Your task to perform on an android device: turn off data saver in the chrome app Image 0: 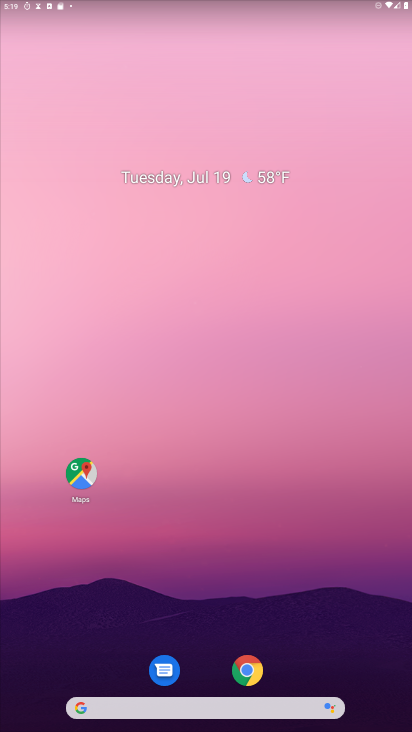
Step 0: drag from (243, 561) to (190, 3)
Your task to perform on an android device: turn off data saver in the chrome app Image 1: 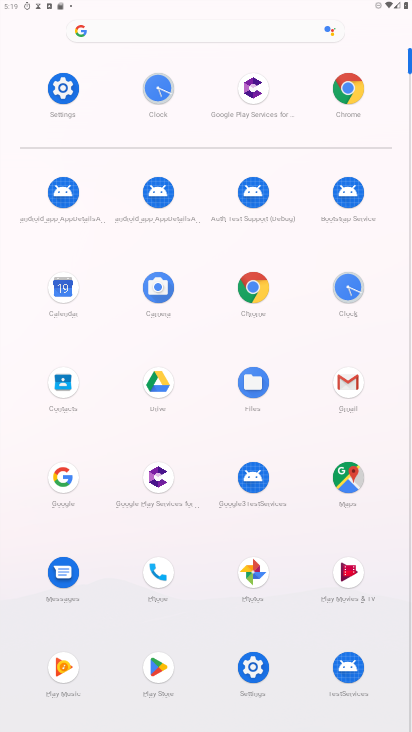
Step 1: click (255, 274)
Your task to perform on an android device: turn off data saver in the chrome app Image 2: 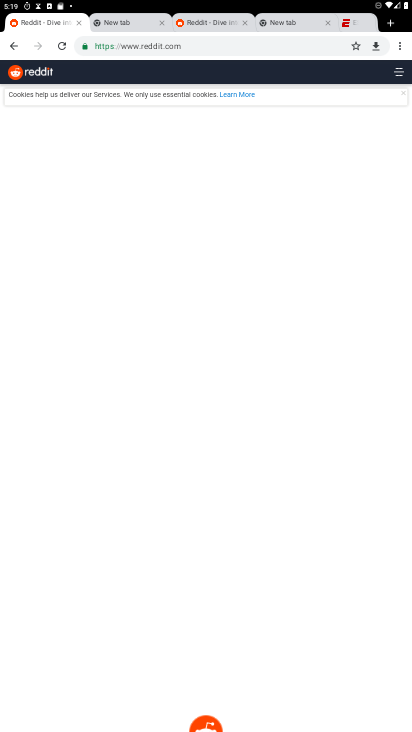
Step 2: click (401, 40)
Your task to perform on an android device: turn off data saver in the chrome app Image 3: 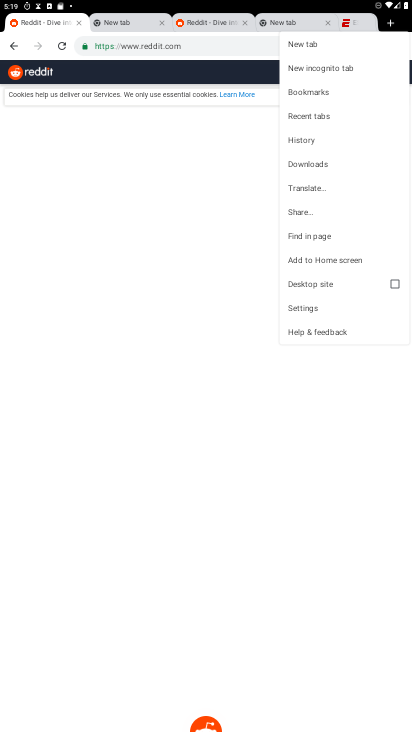
Step 3: click (311, 304)
Your task to perform on an android device: turn off data saver in the chrome app Image 4: 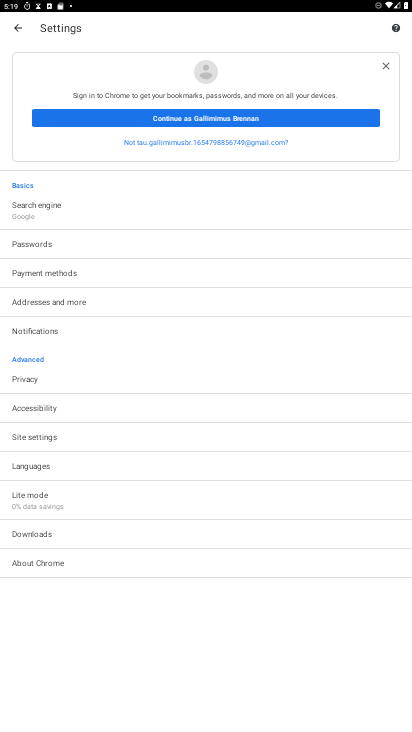
Step 4: click (46, 497)
Your task to perform on an android device: turn off data saver in the chrome app Image 5: 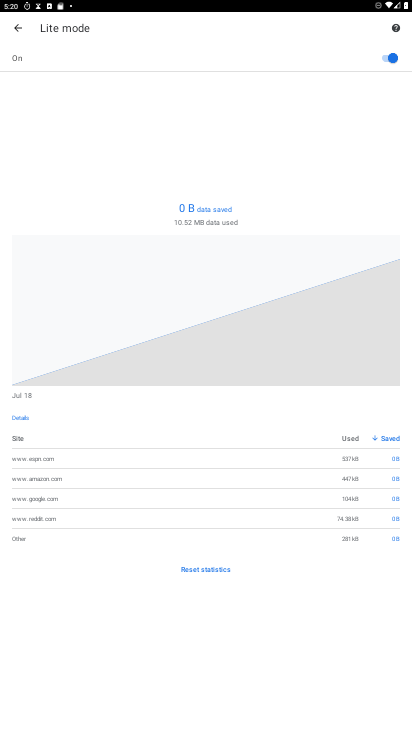
Step 5: click (389, 56)
Your task to perform on an android device: turn off data saver in the chrome app Image 6: 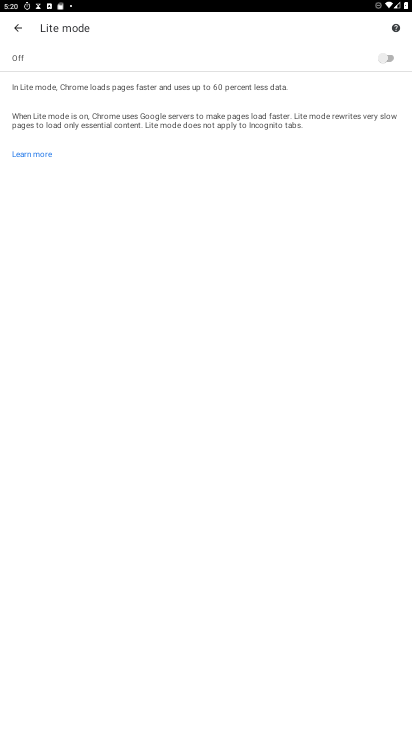
Step 6: task complete